Your task to perform on an android device: Open calendar and show me the third week of next month Image 0: 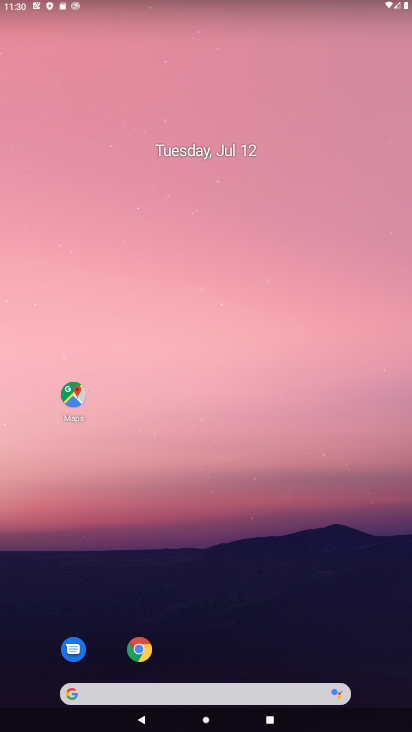
Step 0: drag from (394, 659) to (356, 115)
Your task to perform on an android device: Open calendar and show me the third week of next month Image 1: 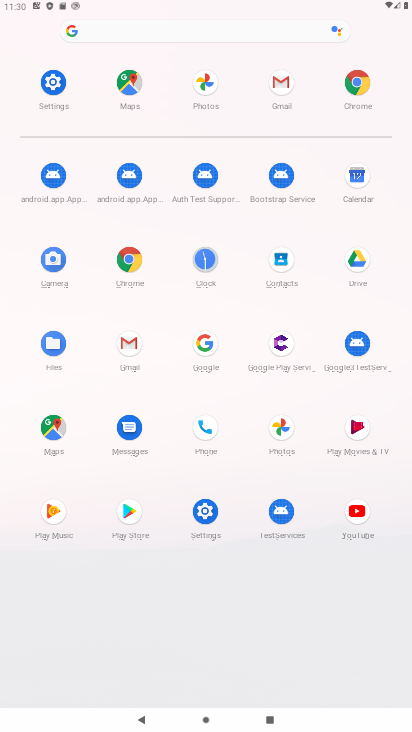
Step 1: click (354, 172)
Your task to perform on an android device: Open calendar and show me the third week of next month Image 2: 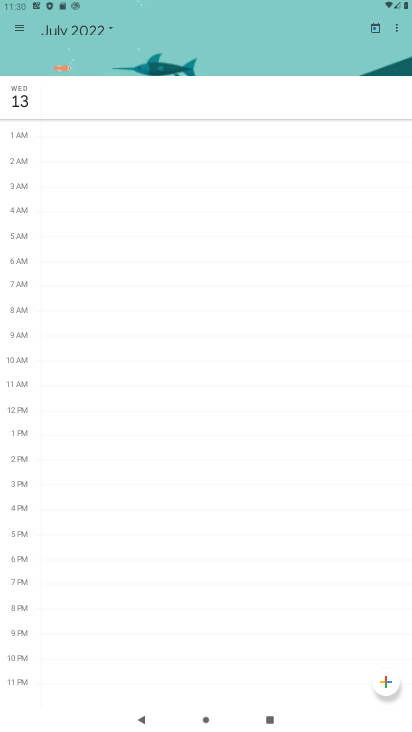
Step 2: click (16, 27)
Your task to perform on an android device: Open calendar and show me the third week of next month Image 3: 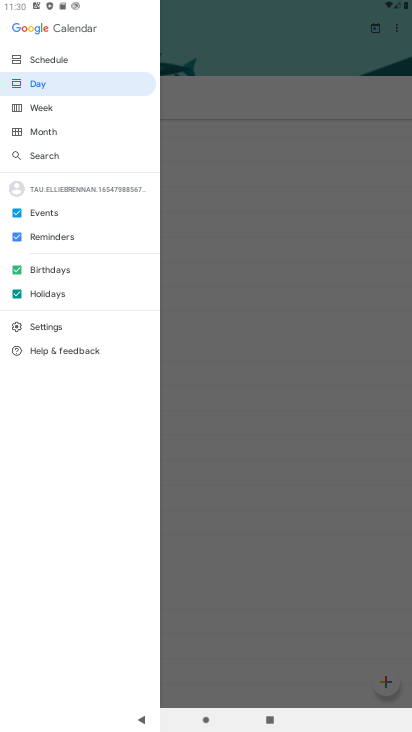
Step 3: click (43, 107)
Your task to perform on an android device: Open calendar and show me the third week of next month Image 4: 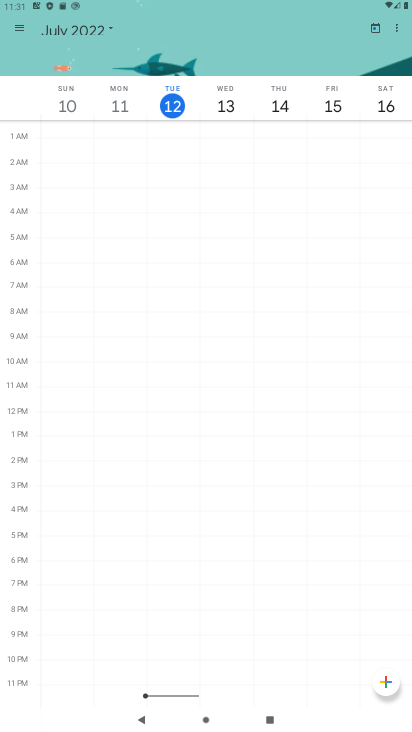
Step 4: click (107, 21)
Your task to perform on an android device: Open calendar and show me the third week of next month Image 5: 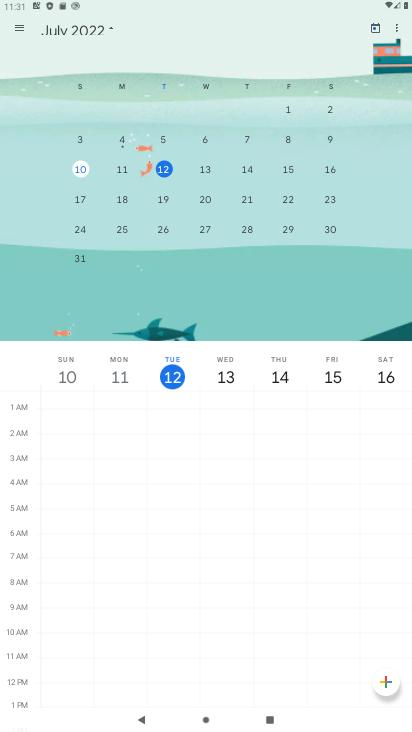
Step 5: drag from (340, 219) to (6, 211)
Your task to perform on an android device: Open calendar and show me the third week of next month Image 6: 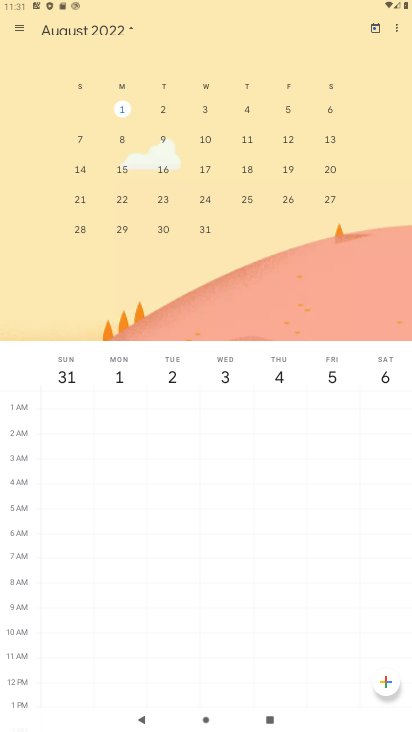
Step 6: click (77, 205)
Your task to perform on an android device: Open calendar and show me the third week of next month Image 7: 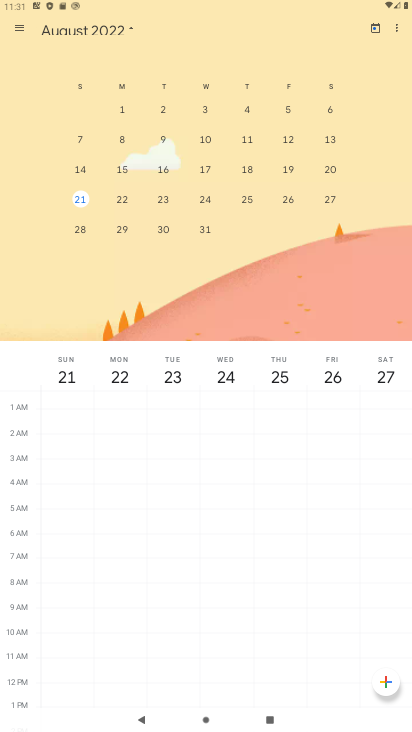
Step 7: task complete